Your task to perform on an android device: Open sound settings Image 0: 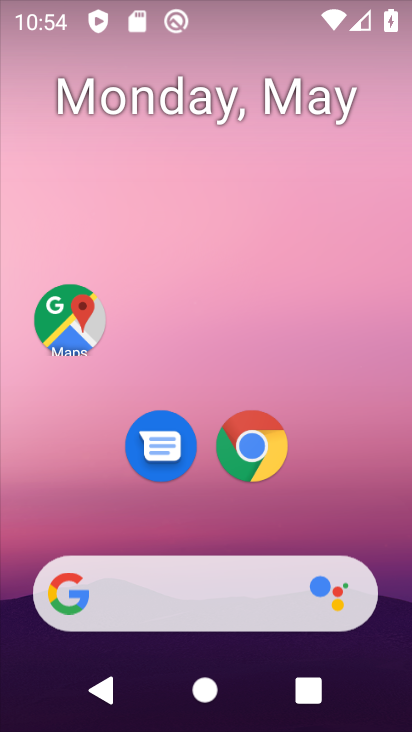
Step 0: drag from (373, 402) to (221, 0)
Your task to perform on an android device: Open sound settings Image 1: 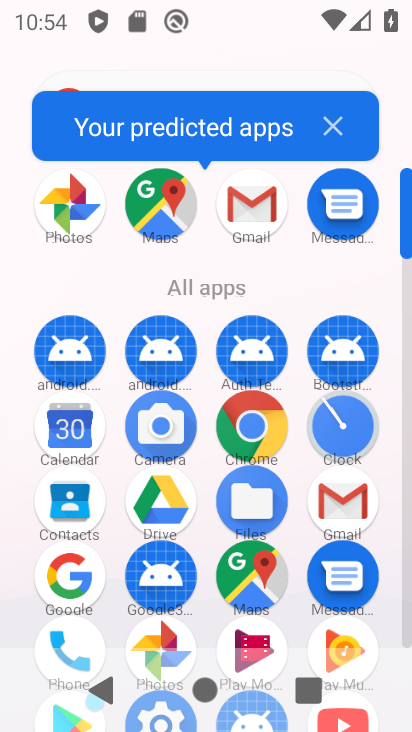
Step 1: drag from (208, 618) to (75, 139)
Your task to perform on an android device: Open sound settings Image 2: 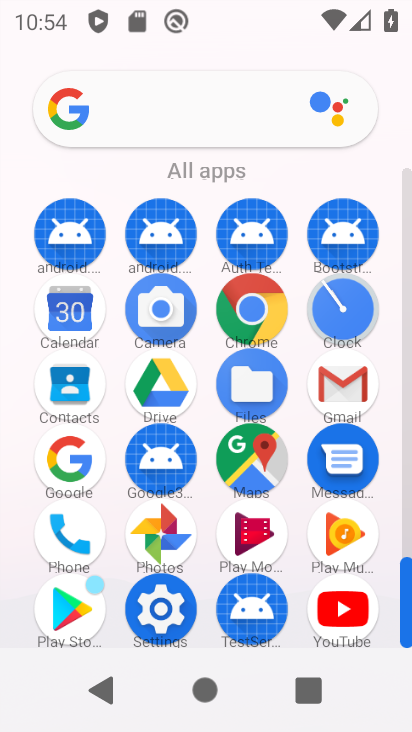
Step 2: click (152, 610)
Your task to perform on an android device: Open sound settings Image 3: 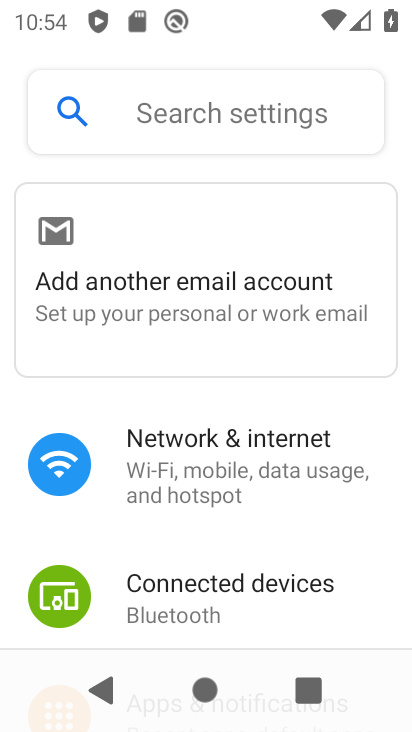
Step 3: drag from (228, 546) to (177, 262)
Your task to perform on an android device: Open sound settings Image 4: 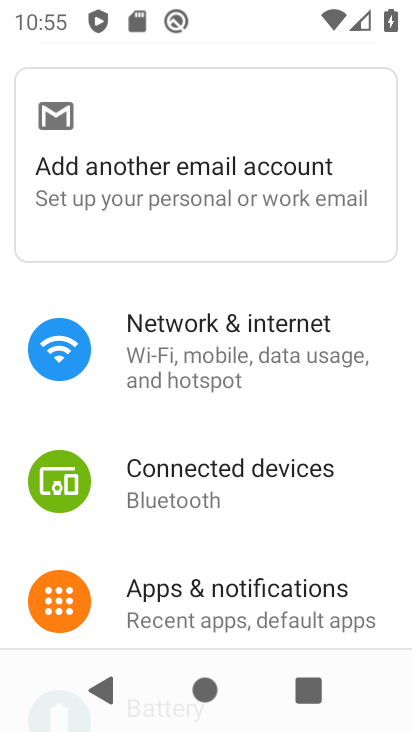
Step 4: drag from (231, 542) to (134, 61)
Your task to perform on an android device: Open sound settings Image 5: 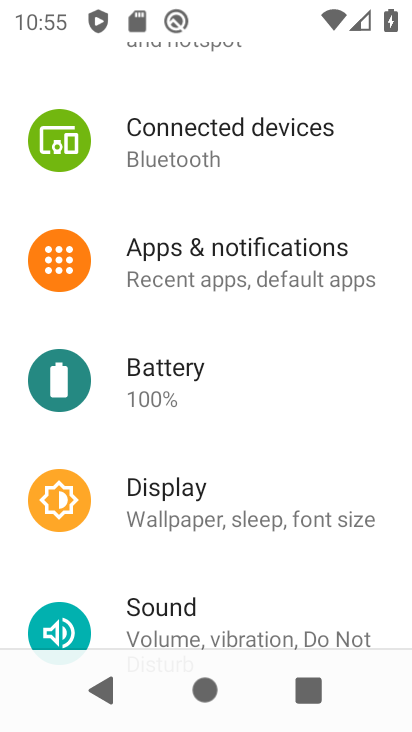
Step 5: drag from (202, 548) to (160, 177)
Your task to perform on an android device: Open sound settings Image 6: 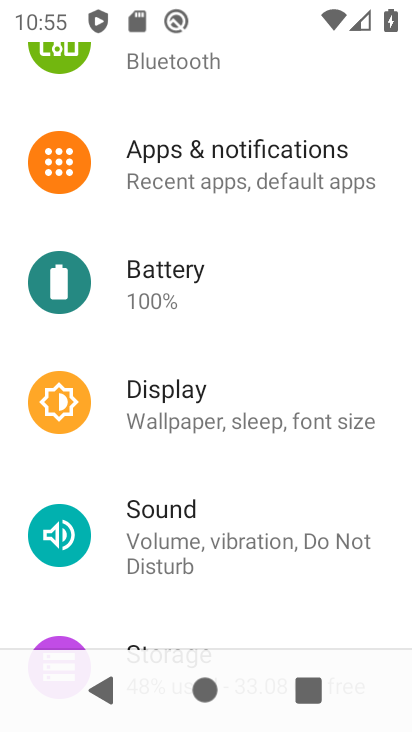
Step 6: click (160, 518)
Your task to perform on an android device: Open sound settings Image 7: 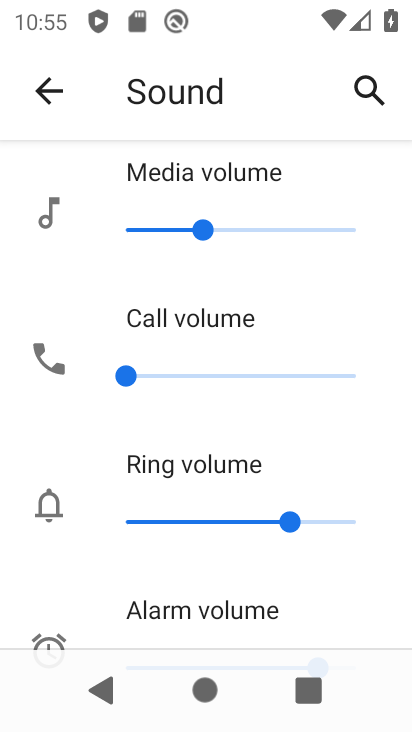
Step 7: task complete